Your task to perform on an android device: clear history in the chrome app Image 0: 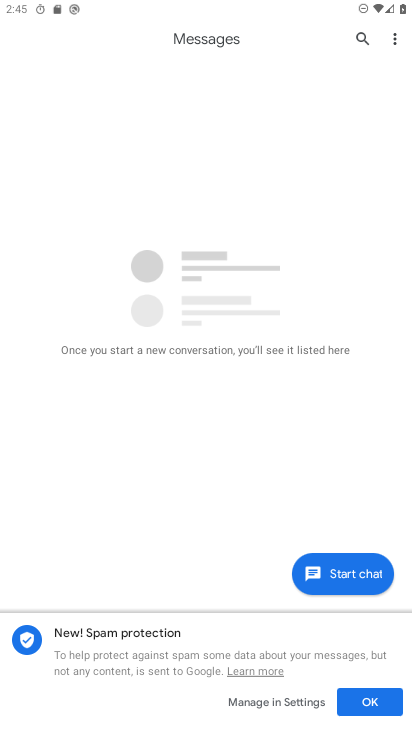
Step 0: press home button
Your task to perform on an android device: clear history in the chrome app Image 1: 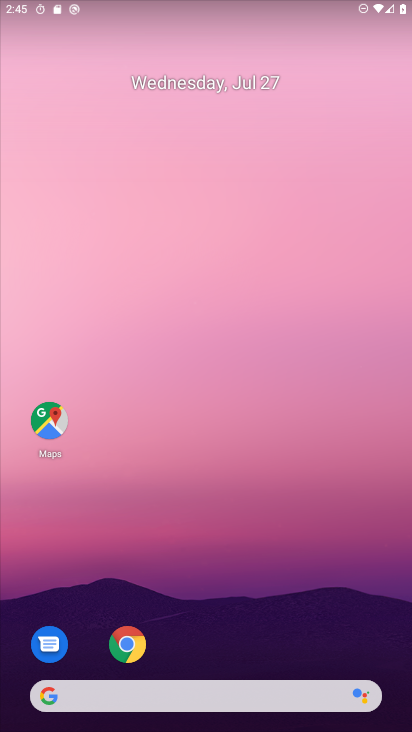
Step 1: click (119, 647)
Your task to perform on an android device: clear history in the chrome app Image 2: 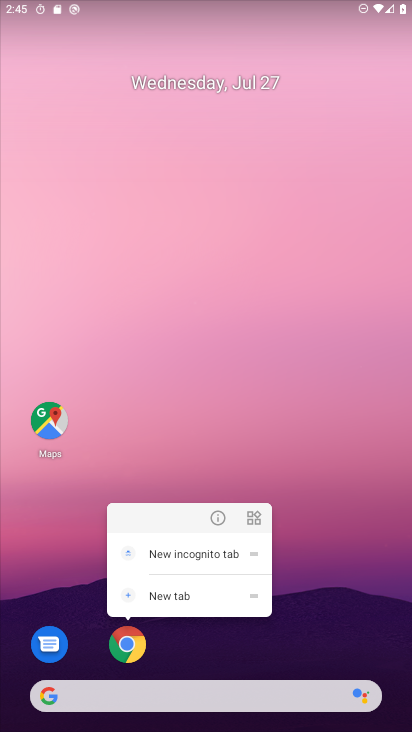
Step 2: click (138, 651)
Your task to perform on an android device: clear history in the chrome app Image 3: 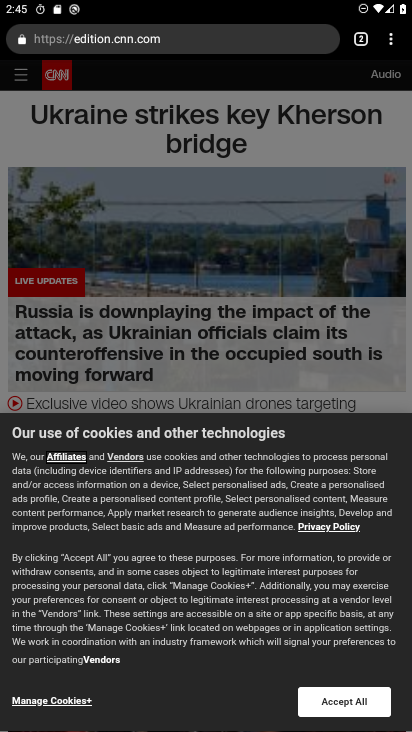
Step 3: click (395, 38)
Your task to perform on an android device: clear history in the chrome app Image 4: 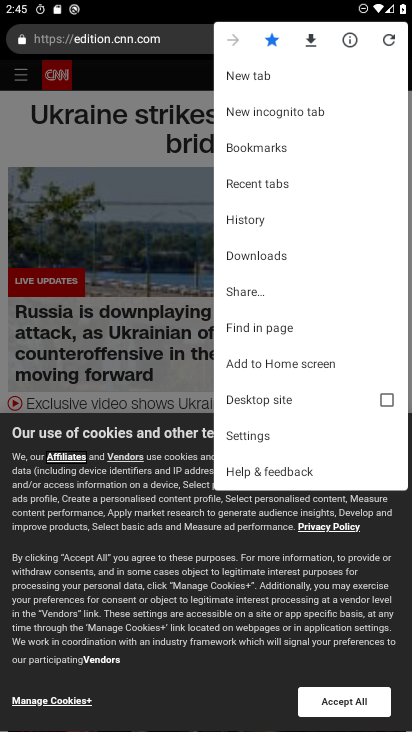
Step 4: click (257, 216)
Your task to perform on an android device: clear history in the chrome app Image 5: 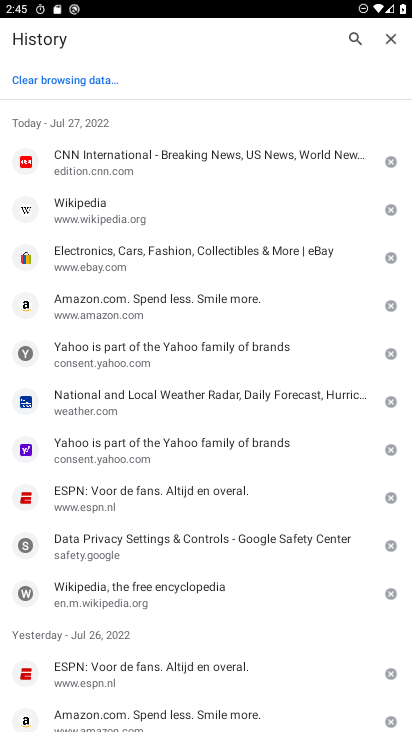
Step 5: click (87, 78)
Your task to perform on an android device: clear history in the chrome app Image 6: 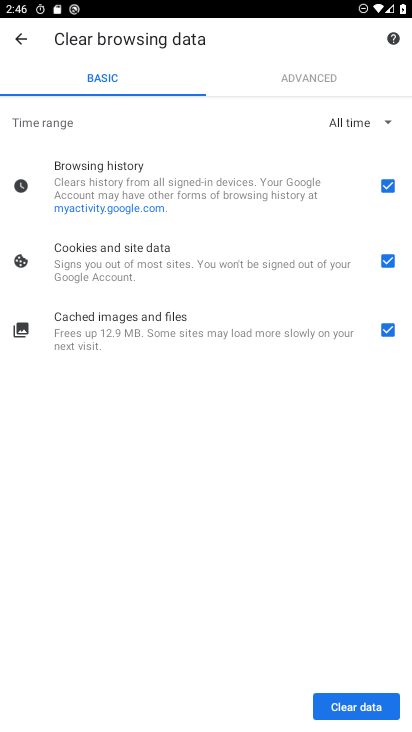
Step 6: click (341, 710)
Your task to perform on an android device: clear history in the chrome app Image 7: 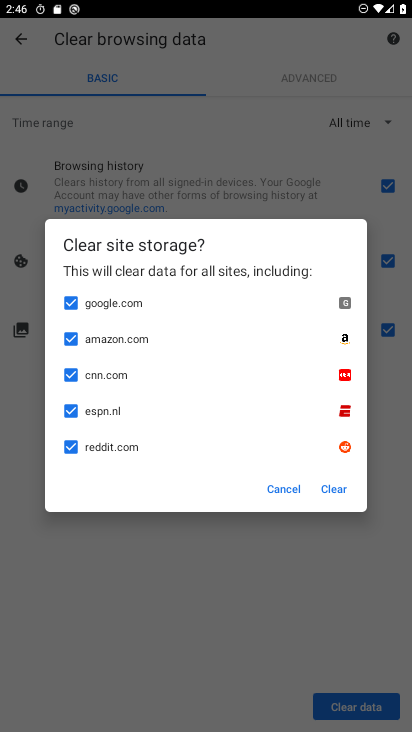
Step 7: click (323, 487)
Your task to perform on an android device: clear history in the chrome app Image 8: 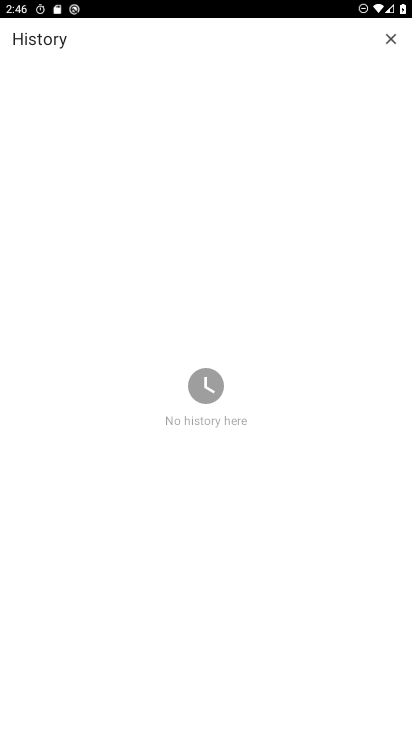
Step 8: task complete